Your task to perform on an android device: toggle notification dots Image 0: 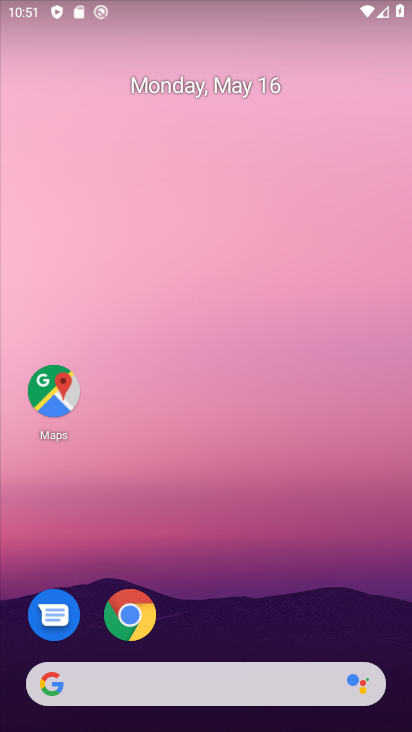
Step 0: drag from (245, 596) to (208, 226)
Your task to perform on an android device: toggle notification dots Image 1: 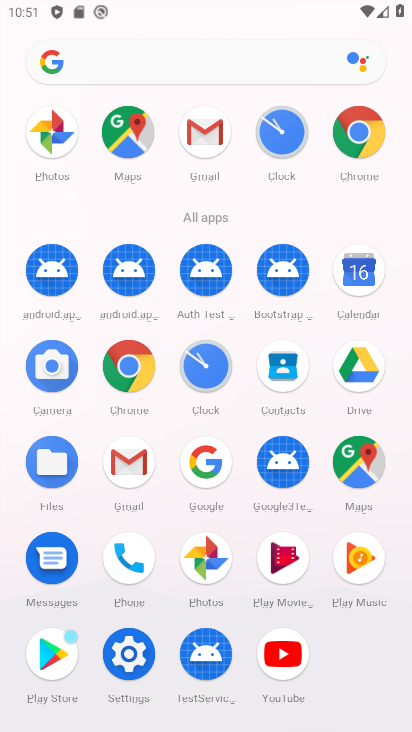
Step 1: click (144, 644)
Your task to perform on an android device: toggle notification dots Image 2: 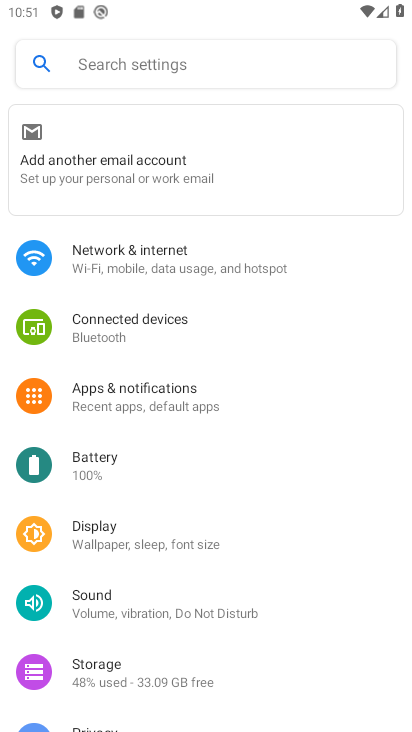
Step 2: click (125, 382)
Your task to perform on an android device: toggle notification dots Image 3: 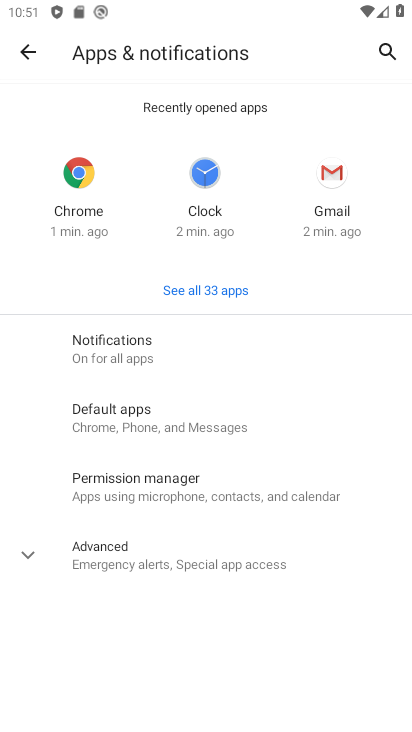
Step 3: click (128, 360)
Your task to perform on an android device: toggle notification dots Image 4: 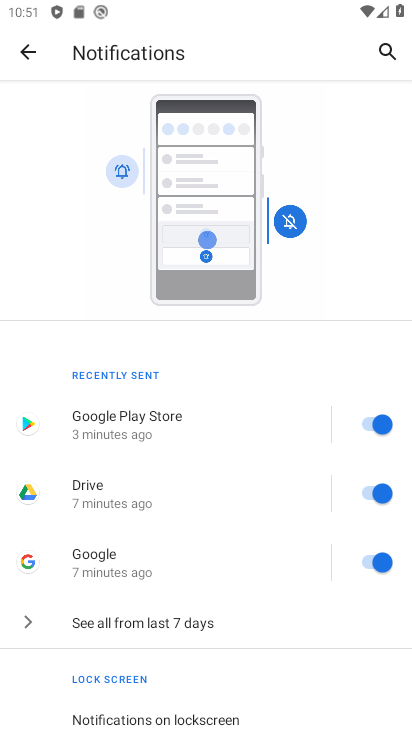
Step 4: drag from (244, 608) to (262, 149)
Your task to perform on an android device: toggle notification dots Image 5: 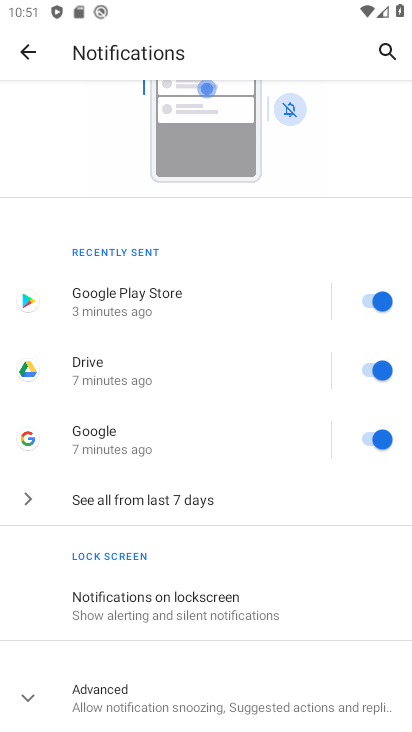
Step 5: click (138, 690)
Your task to perform on an android device: toggle notification dots Image 6: 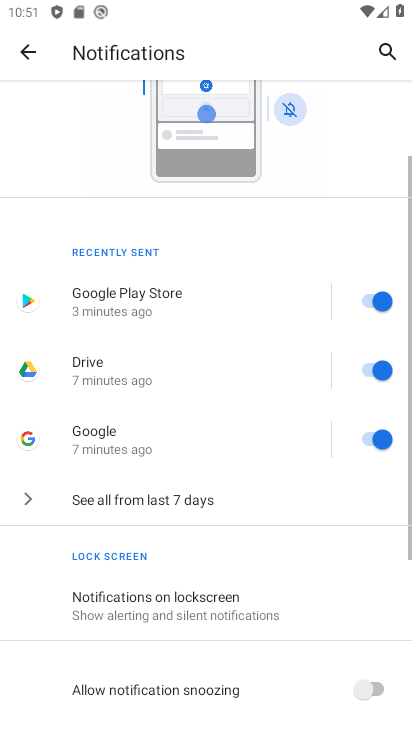
Step 6: drag from (288, 618) to (284, 266)
Your task to perform on an android device: toggle notification dots Image 7: 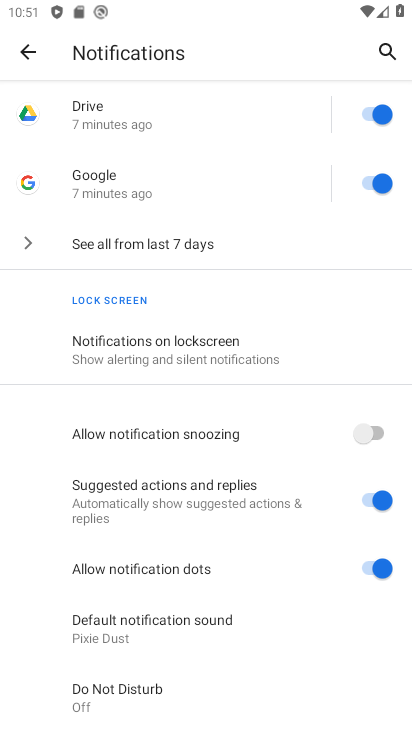
Step 7: click (371, 564)
Your task to perform on an android device: toggle notification dots Image 8: 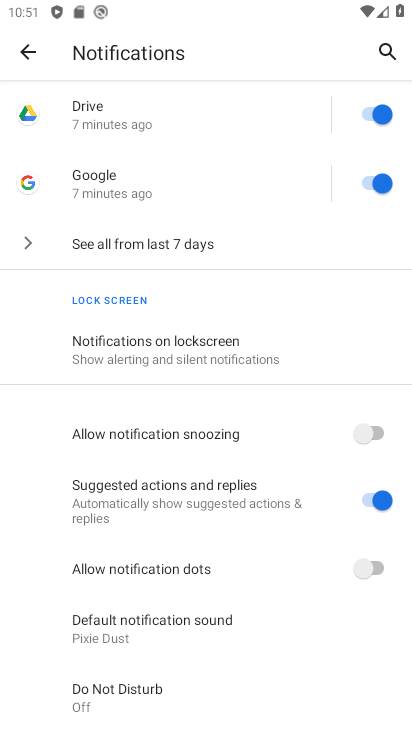
Step 8: task complete